Your task to perform on an android device: Open maps Image 0: 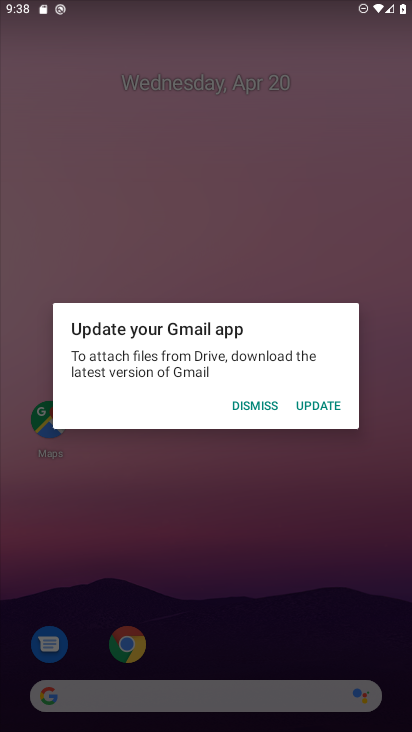
Step 0: press home button
Your task to perform on an android device: Open maps Image 1: 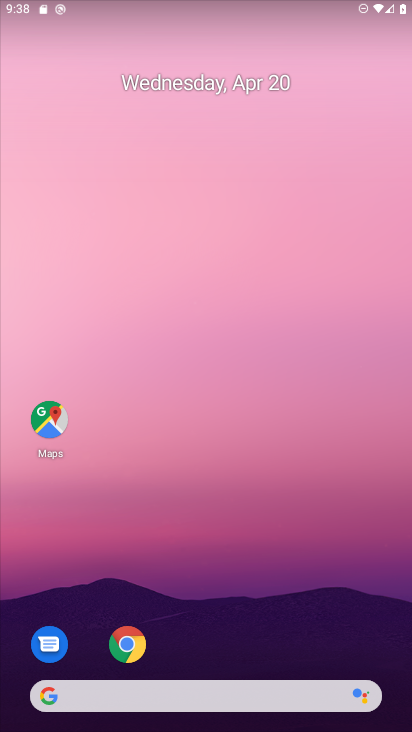
Step 1: drag from (282, 616) to (267, 109)
Your task to perform on an android device: Open maps Image 2: 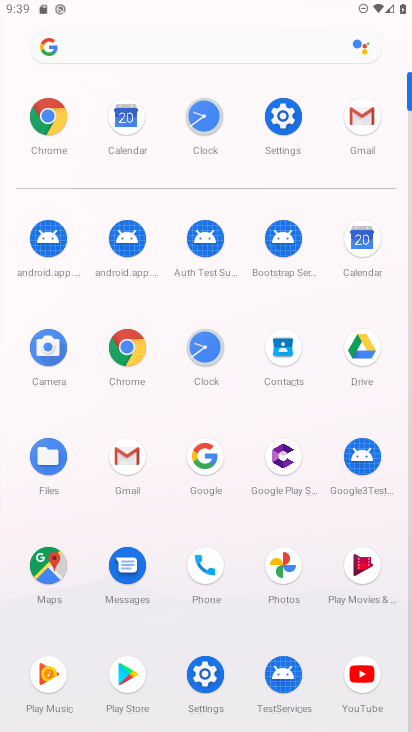
Step 2: click (41, 567)
Your task to perform on an android device: Open maps Image 3: 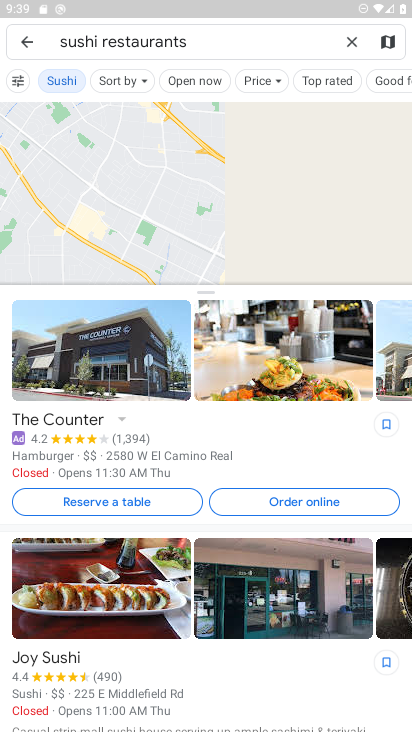
Step 3: click (348, 41)
Your task to perform on an android device: Open maps Image 4: 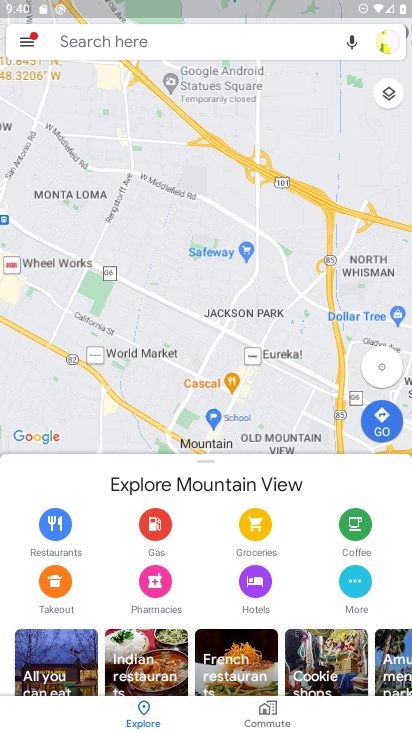
Step 4: task complete